Your task to perform on an android device: turn off translation in the chrome app Image 0: 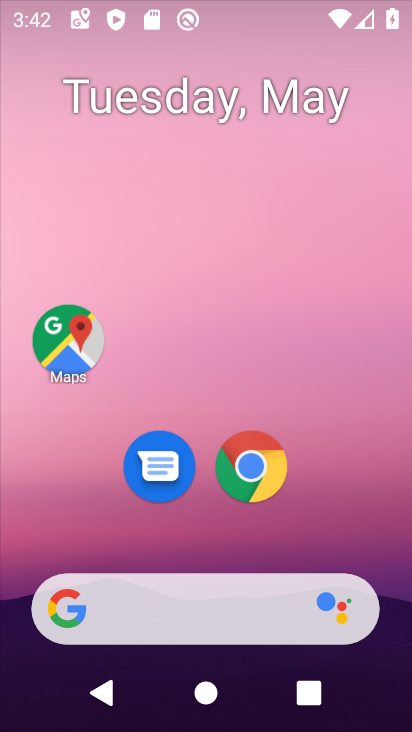
Step 0: drag from (153, 726) to (222, 96)
Your task to perform on an android device: turn off translation in the chrome app Image 1: 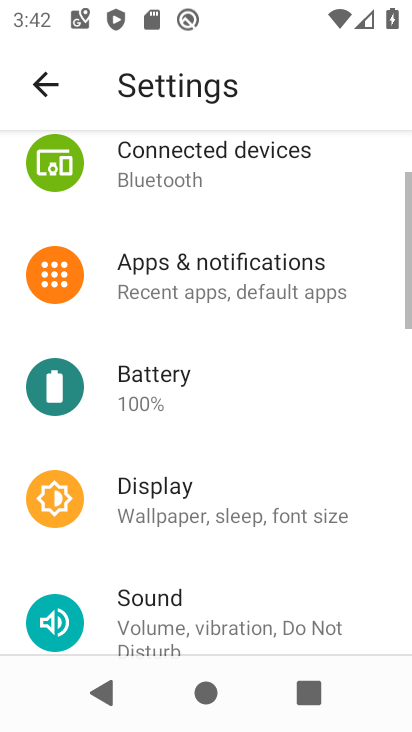
Step 1: press home button
Your task to perform on an android device: turn off translation in the chrome app Image 2: 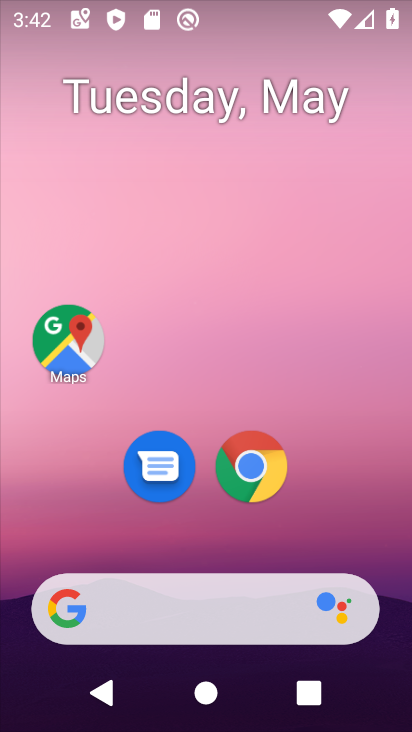
Step 2: click (256, 482)
Your task to perform on an android device: turn off translation in the chrome app Image 3: 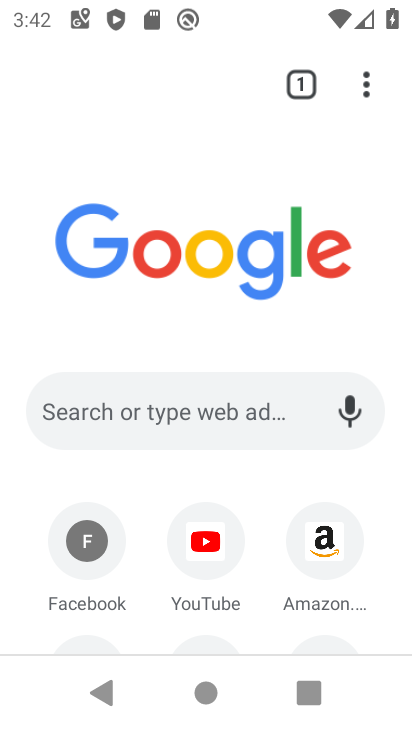
Step 3: click (369, 81)
Your task to perform on an android device: turn off translation in the chrome app Image 4: 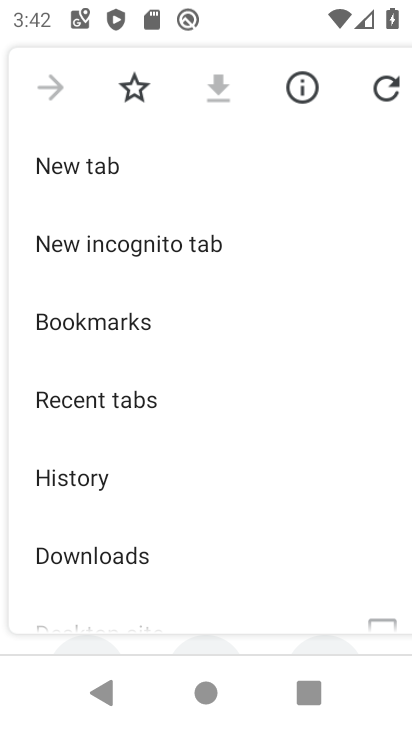
Step 4: drag from (104, 580) to (127, 273)
Your task to perform on an android device: turn off translation in the chrome app Image 5: 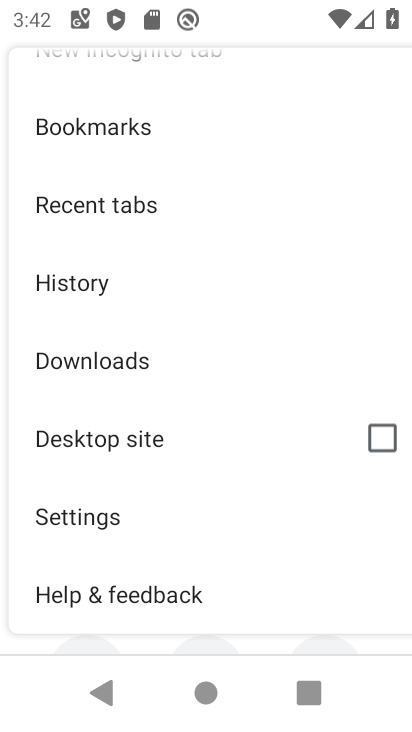
Step 5: click (87, 514)
Your task to perform on an android device: turn off translation in the chrome app Image 6: 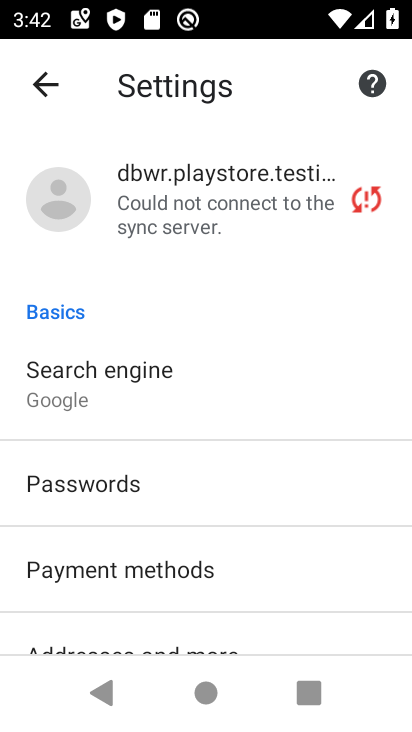
Step 6: drag from (136, 596) to (162, 325)
Your task to perform on an android device: turn off translation in the chrome app Image 7: 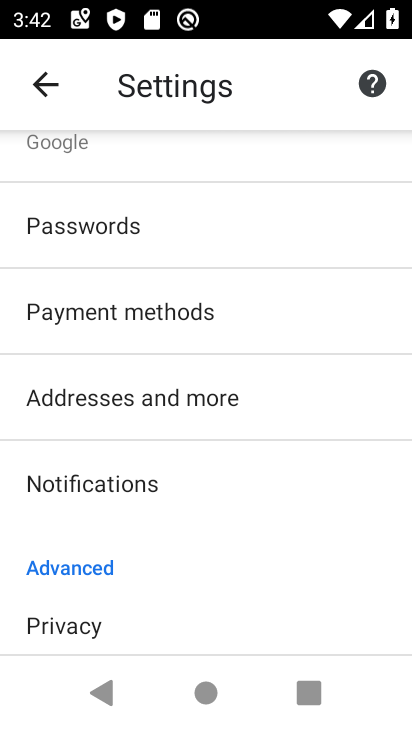
Step 7: drag from (126, 597) to (165, 379)
Your task to perform on an android device: turn off translation in the chrome app Image 8: 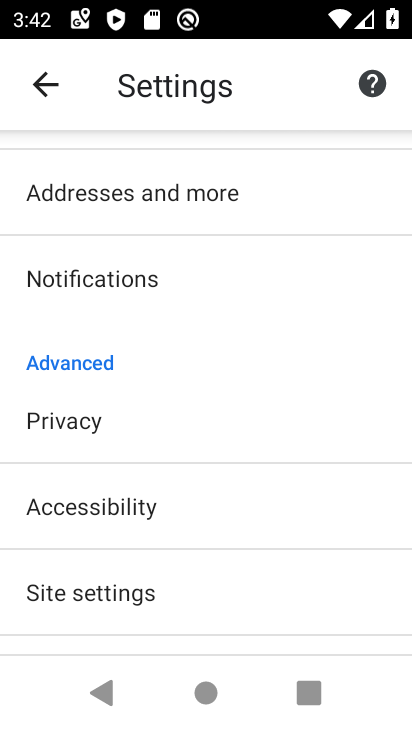
Step 8: drag from (109, 540) to (127, 301)
Your task to perform on an android device: turn off translation in the chrome app Image 9: 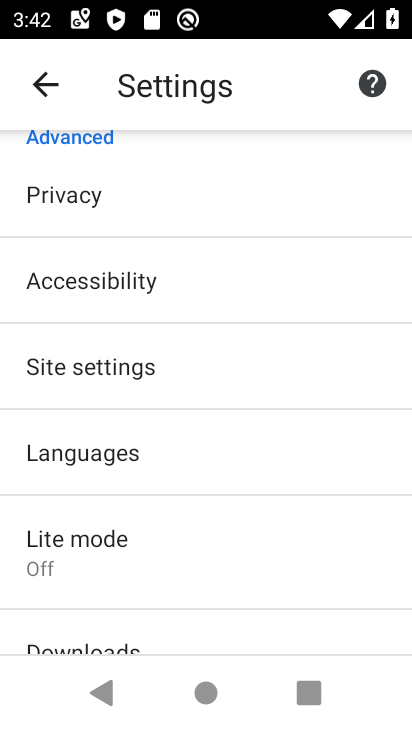
Step 9: click (79, 460)
Your task to perform on an android device: turn off translation in the chrome app Image 10: 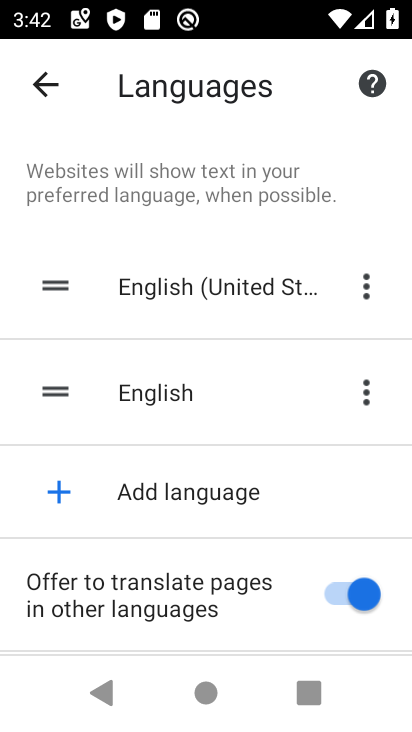
Step 10: click (340, 597)
Your task to perform on an android device: turn off translation in the chrome app Image 11: 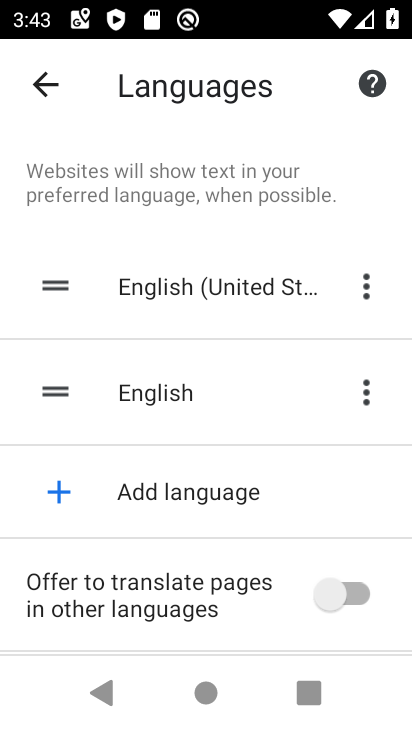
Step 11: task complete